Your task to perform on an android device: open wifi settings Image 0: 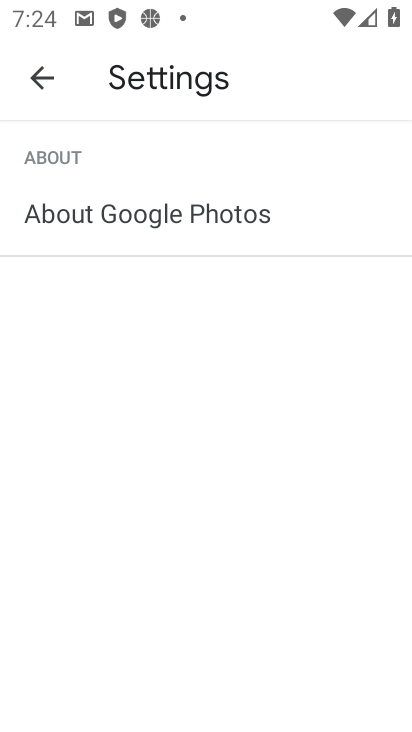
Step 0: press back button
Your task to perform on an android device: open wifi settings Image 1: 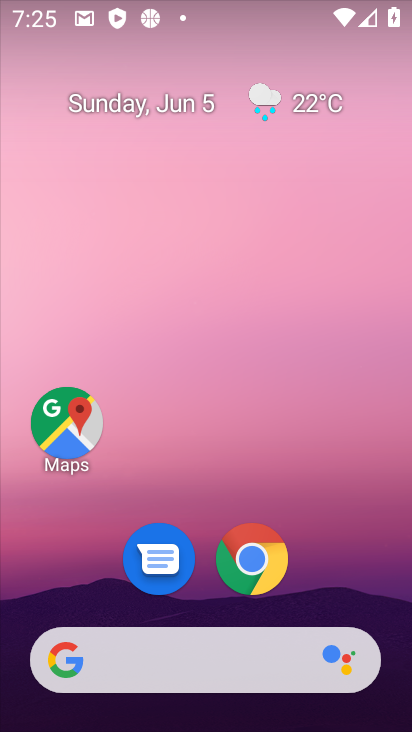
Step 1: drag from (342, 561) to (274, 48)
Your task to perform on an android device: open wifi settings Image 2: 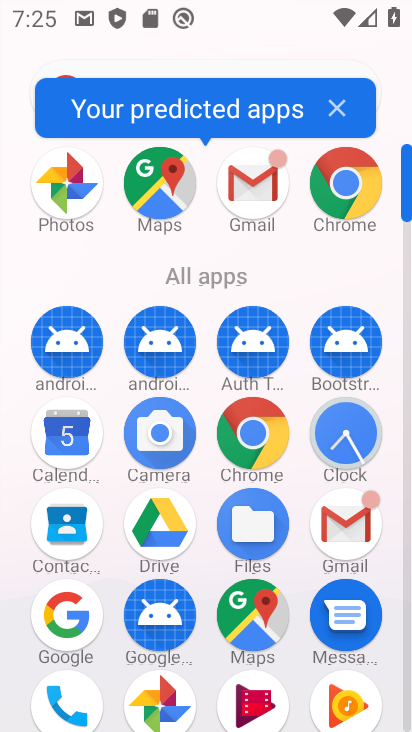
Step 2: drag from (302, 286) to (204, 40)
Your task to perform on an android device: open wifi settings Image 3: 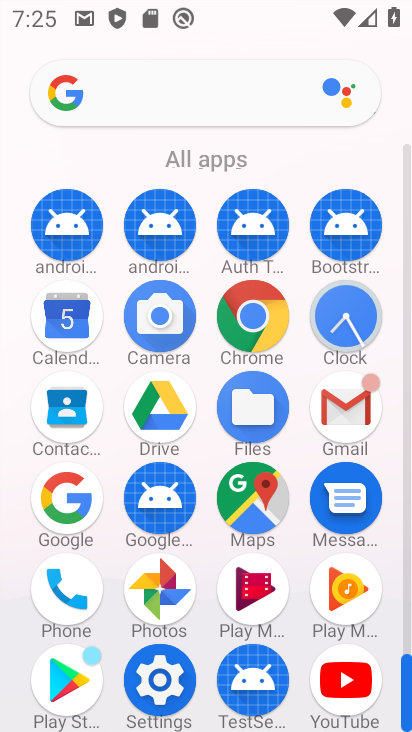
Step 3: click (158, 679)
Your task to perform on an android device: open wifi settings Image 4: 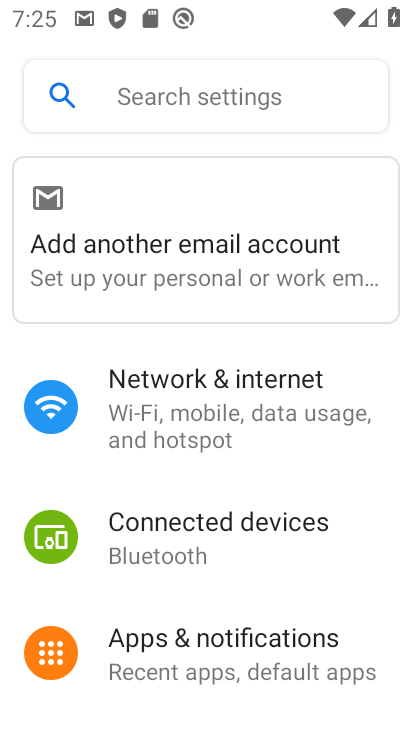
Step 4: click (219, 409)
Your task to perform on an android device: open wifi settings Image 5: 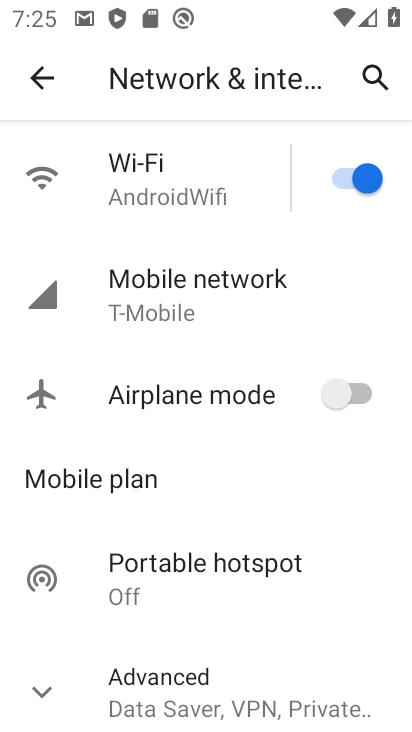
Step 5: click (135, 202)
Your task to perform on an android device: open wifi settings Image 6: 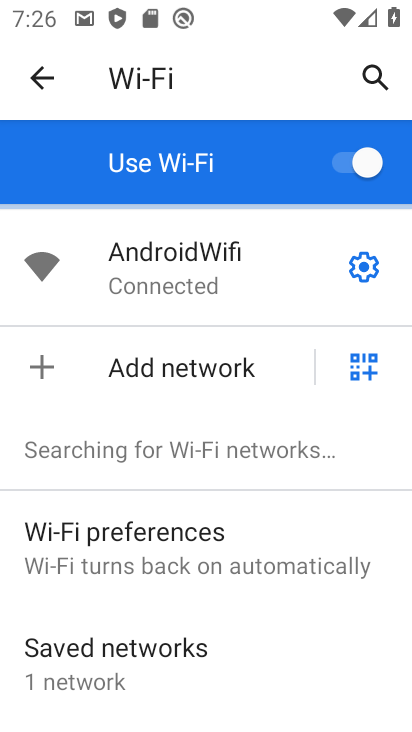
Step 6: click (368, 268)
Your task to perform on an android device: open wifi settings Image 7: 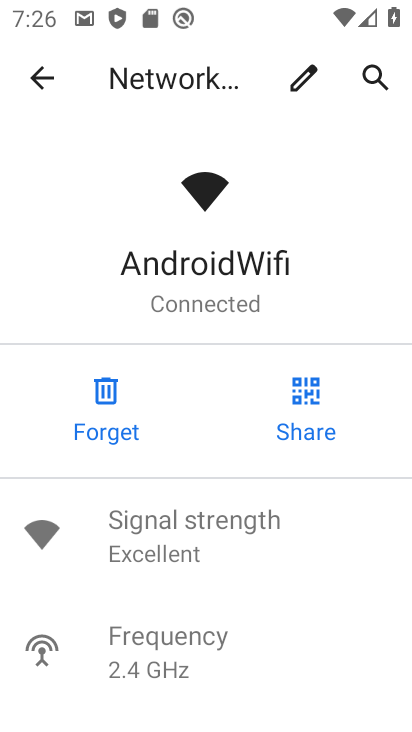
Step 7: task complete